Your task to perform on an android device: toggle notification dots Image 0: 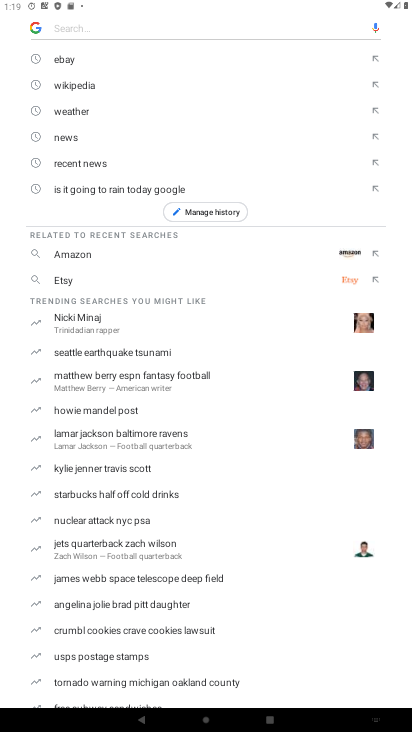
Step 0: press home button
Your task to perform on an android device: toggle notification dots Image 1: 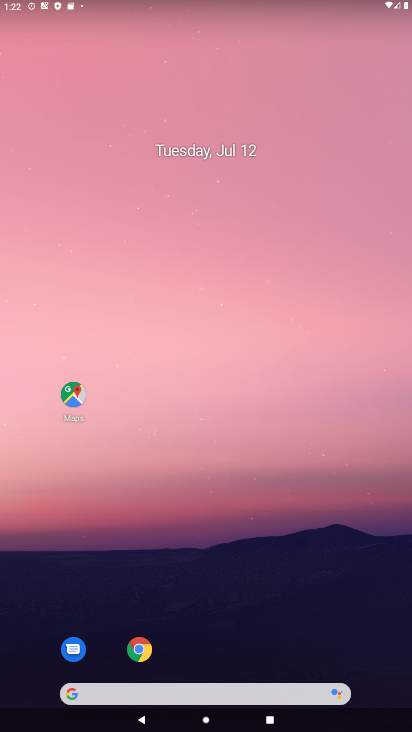
Step 1: drag from (361, 679) to (102, 16)
Your task to perform on an android device: toggle notification dots Image 2: 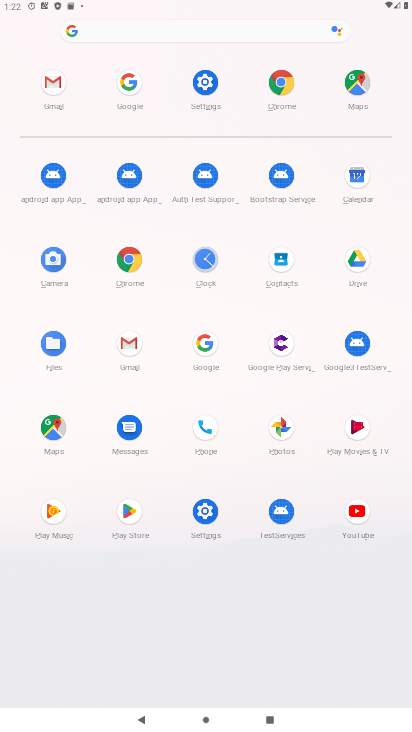
Step 2: click (209, 88)
Your task to perform on an android device: toggle notification dots Image 3: 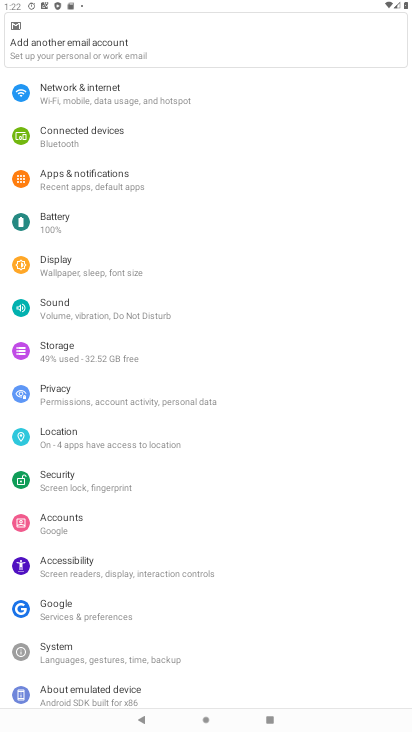
Step 3: click (132, 183)
Your task to perform on an android device: toggle notification dots Image 4: 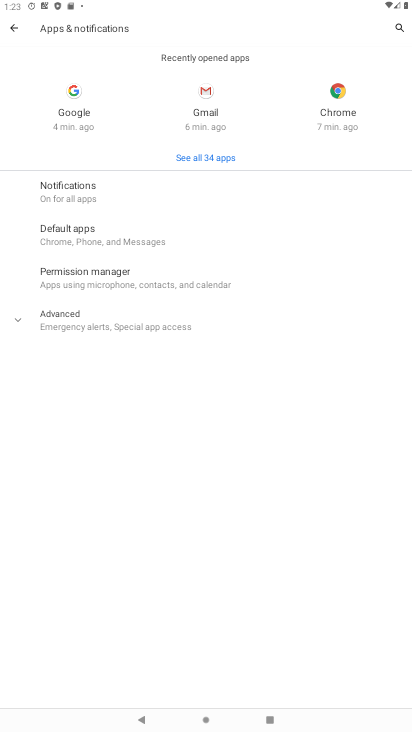
Step 4: click (121, 196)
Your task to perform on an android device: toggle notification dots Image 5: 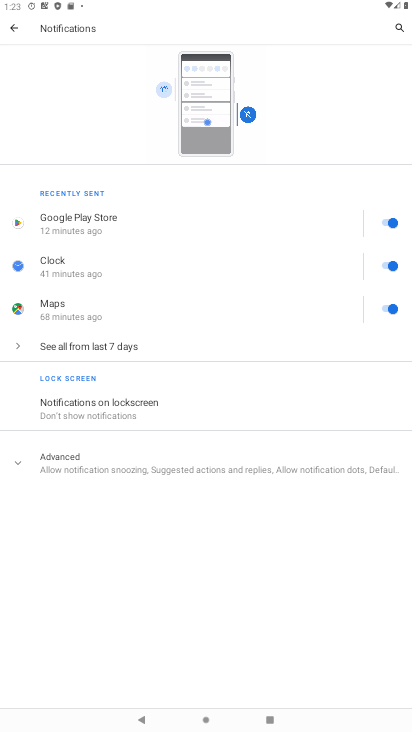
Step 5: click (123, 477)
Your task to perform on an android device: toggle notification dots Image 6: 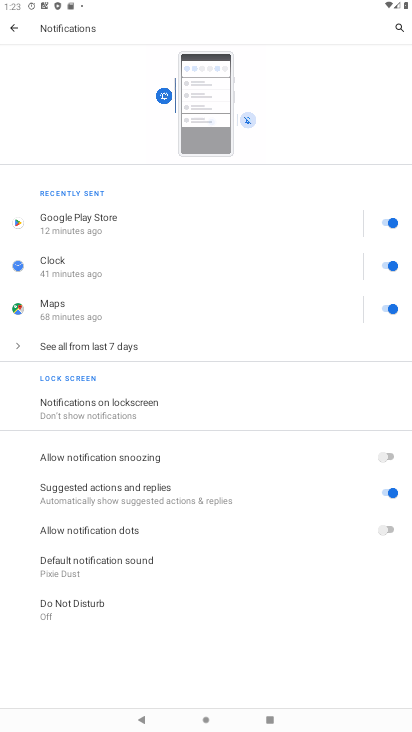
Step 6: click (156, 533)
Your task to perform on an android device: toggle notification dots Image 7: 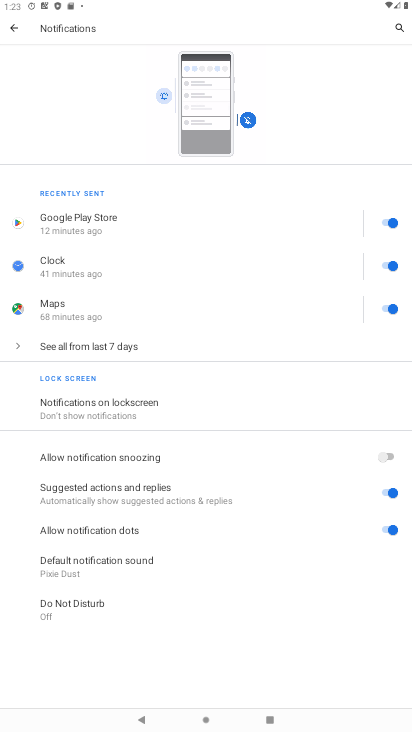
Step 7: task complete